Your task to perform on an android device: Toggle the flashlight Image 0: 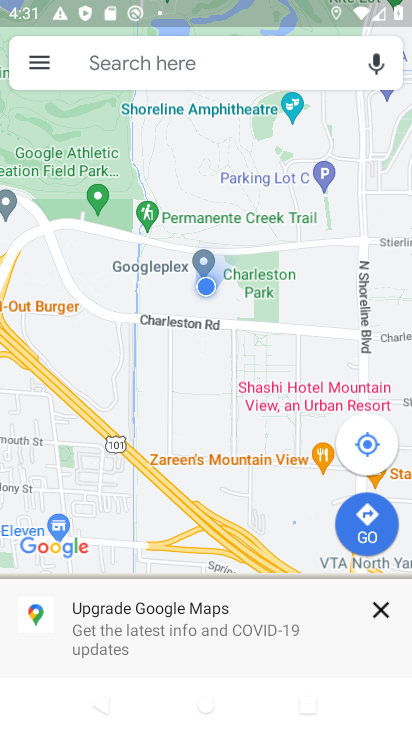
Step 0: press back button
Your task to perform on an android device: Toggle the flashlight Image 1: 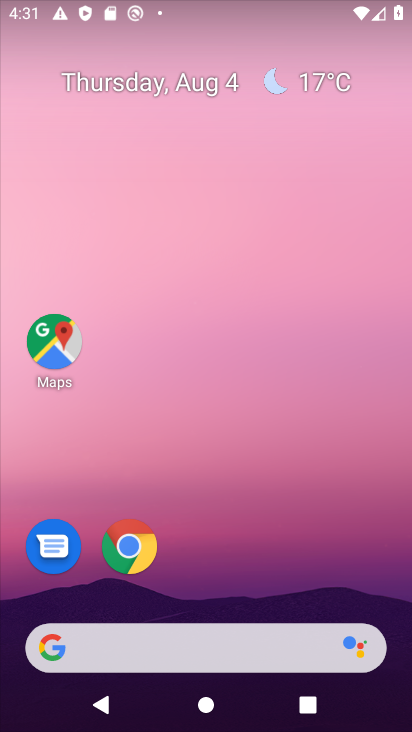
Step 1: task complete